Your task to perform on an android device: Show me the alarms in the clock app Image 0: 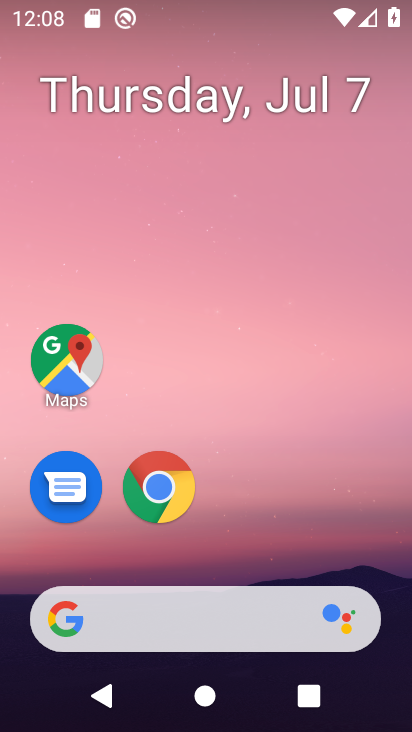
Step 0: drag from (300, 541) to (316, 147)
Your task to perform on an android device: Show me the alarms in the clock app Image 1: 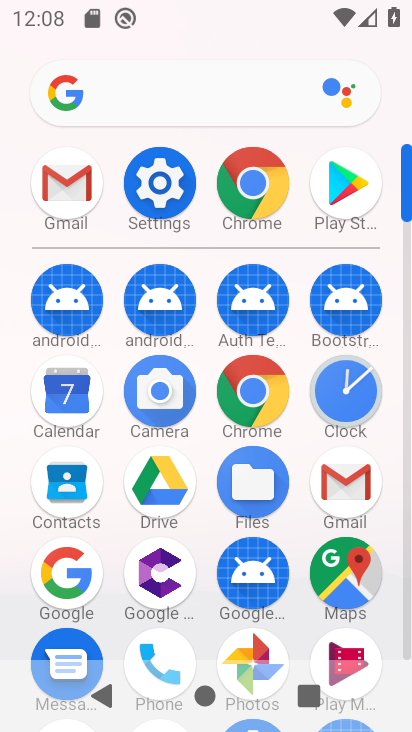
Step 1: click (353, 399)
Your task to perform on an android device: Show me the alarms in the clock app Image 2: 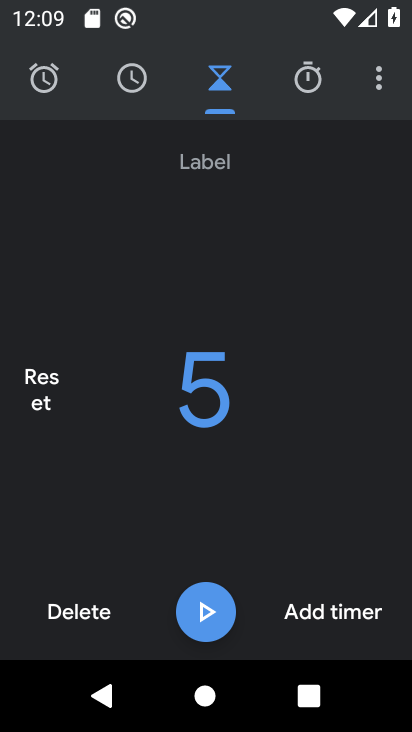
Step 2: click (59, 86)
Your task to perform on an android device: Show me the alarms in the clock app Image 3: 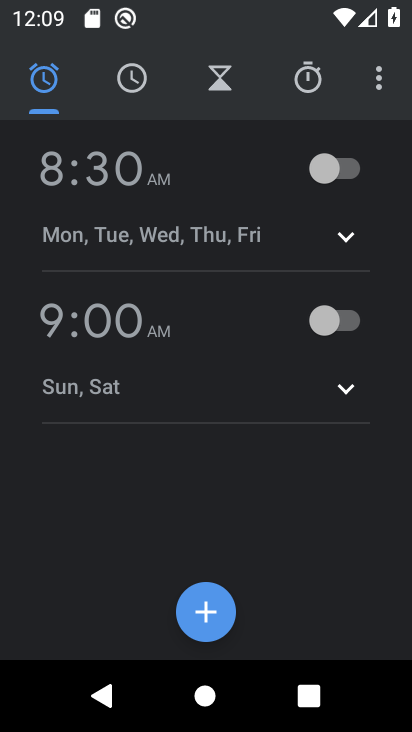
Step 3: task complete